Your task to perform on an android device: Open the phone app and click the voicemail tab. Image 0: 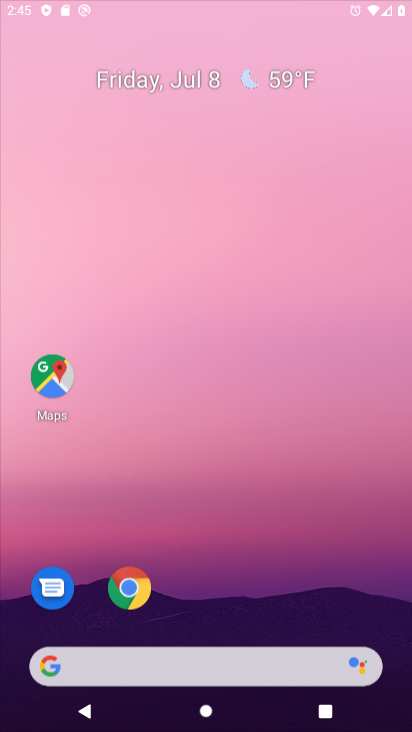
Step 0: click (234, 1)
Your task to perform on an android device: Open the phone app and click the voicemail tab. Image 1: 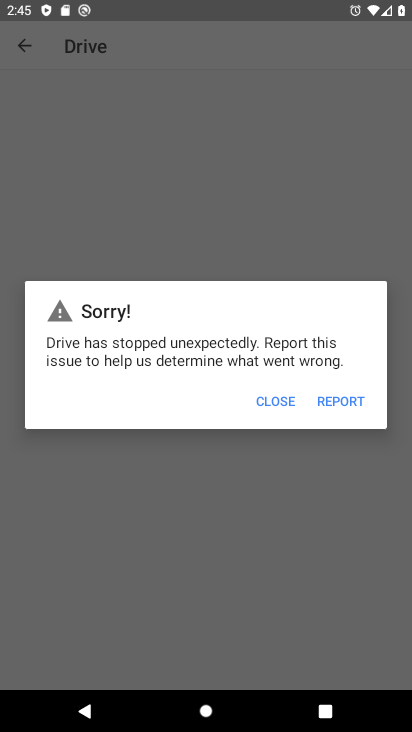
Step 1: press home button
Your task to perform on an android device: Open the phone app and click the voicemail tab. Image 2: 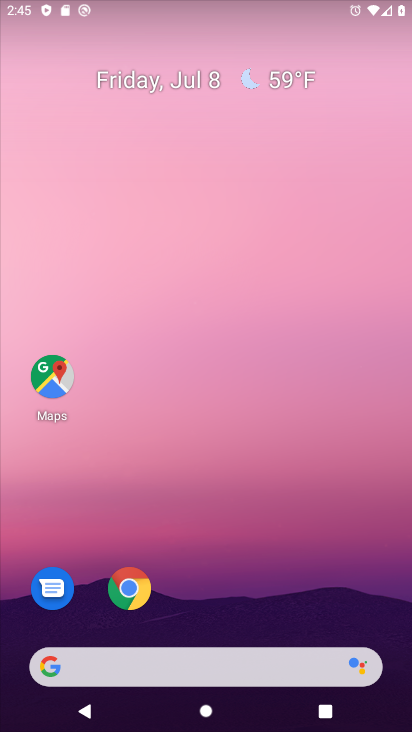
Step 2: drag from (253, 616) to (236, 3)
Your task to perform on an android device: Open the phone app and click the voicemail tab. Image 3: 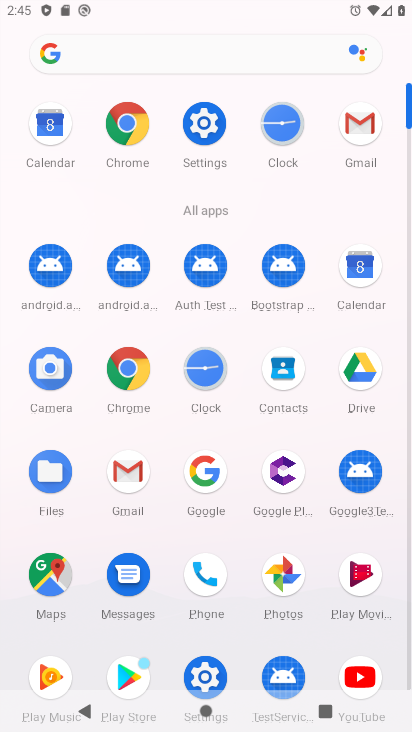
Step 3: click (214, 593)
Your task to perform on an android device: Open the phone app and click the voicemail tab. Image 4: 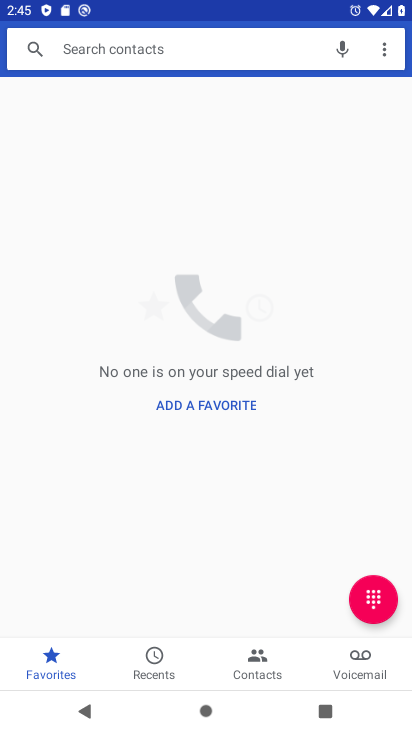
Step 4: click (346, 674)
Your task to perform on an android device: Open the phone app and click the voicemail tab. Image 5: 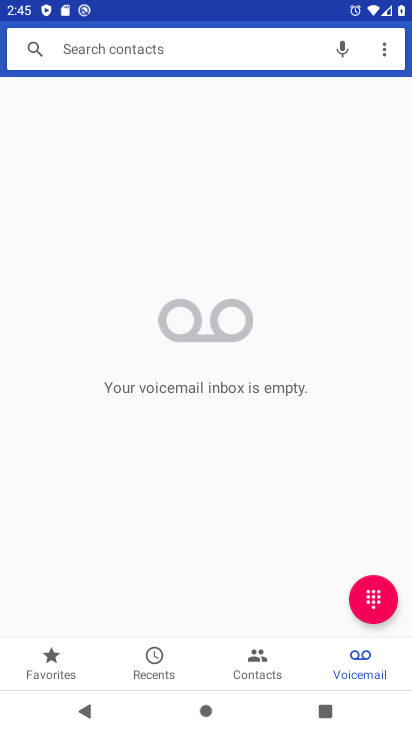
Step 5: task complete